Your task to perform on an android device: clear all cookies in the chrome app Image 0: 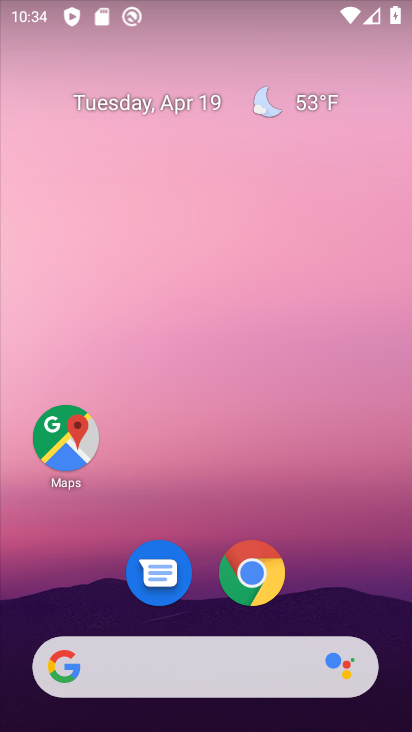
Step 0: click (252, 573)
Your task to perform on an android device: clear all cookies in the chrome app Image 1: 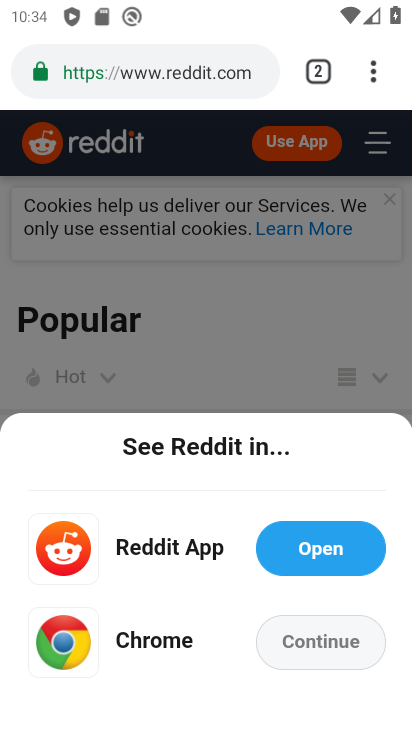
Step 1: click (373, 68)
Your task to perform on an android device: clear all cookies in the chrome app Image 2: 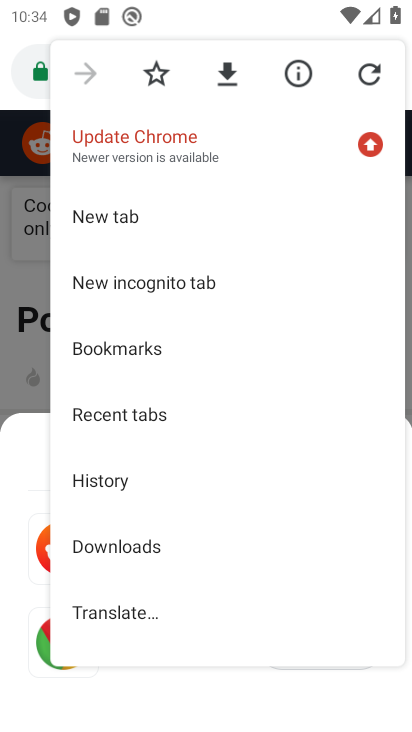
Step 2: drag from (176, 606) to (171, 216)
Your task to perform on an android device: clear all cookies in the chrome app Image 3: 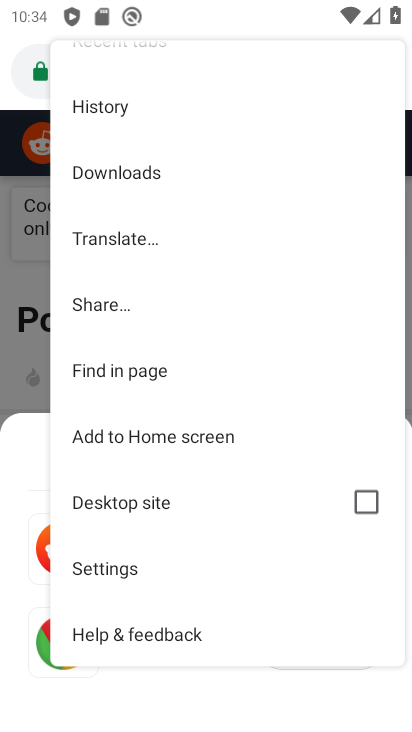
Step 3: click (115, 567)
Your task to perform on an android device: clear all cookies in the chrome app Image 4: 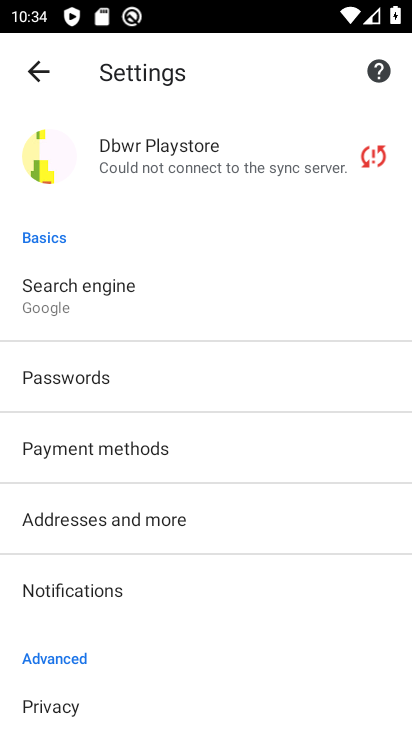
Step 4: drag from (131, 643) to (142, 253)
Your task to perform on an android device: clear all cookies in the chrome app Image 5: 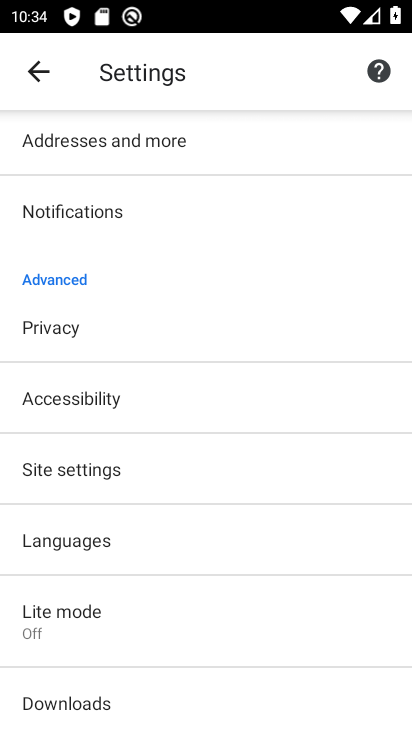
Step 5: drag from (144, 660) to (148, 261)
Your task to perform on an android device: clear all cookies in the chrome app Image 6: 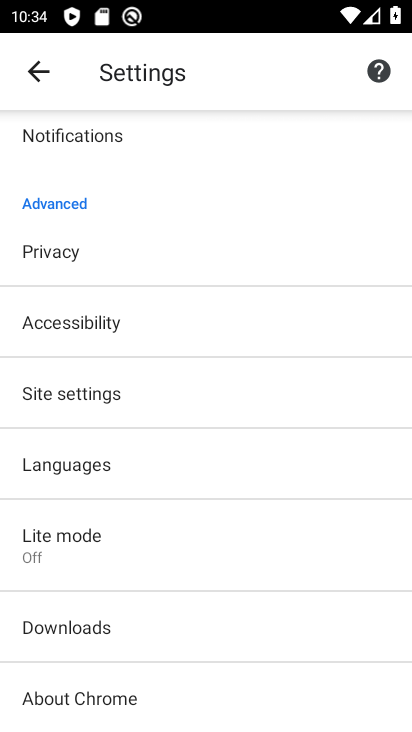
Step 6: click (55, 248)
Your task to perform on an android device: clear all cookies in the chrome app Image 7: 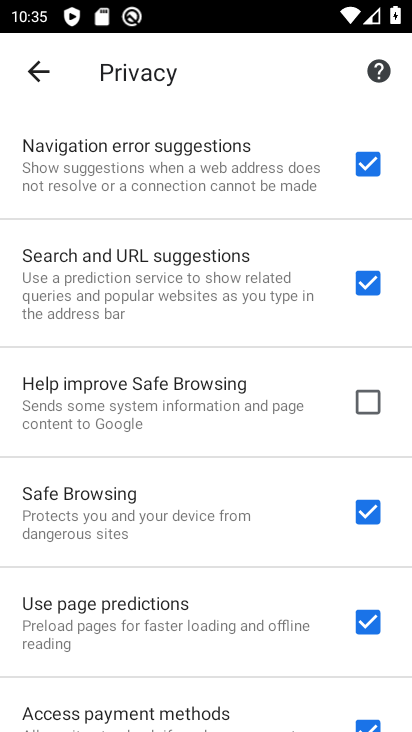
Step 7: drag from (181, 646) to (185, 134)
Your task to perform on an android device: clear all cookies in the chrome app Image 8: 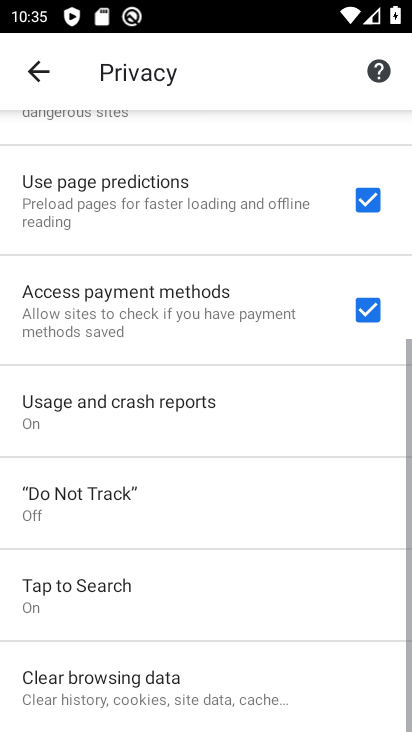
Step 8: drag from (209, 663) to (211, 187)
Your task to perform on an android device: clear all cookies in the chrome app Image 9: 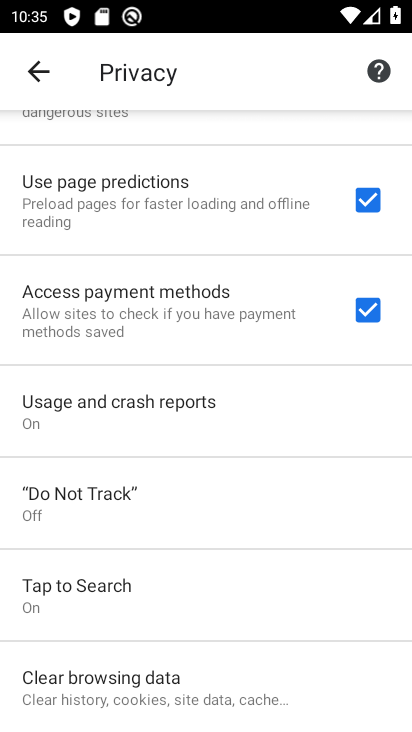
Step 9: click (74, 695)
Your task to perform on an android device: clear all cookies in the chrome app Image 10: 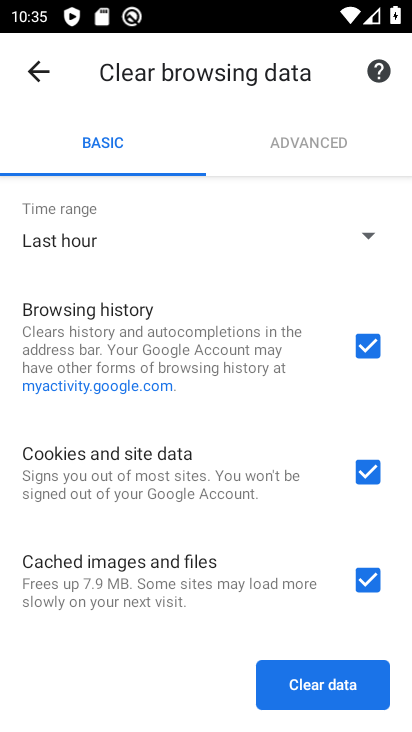
Step 10: click (362, 344)
Your task to perform on an android device: clear all cookies in the chrome app Image 11: 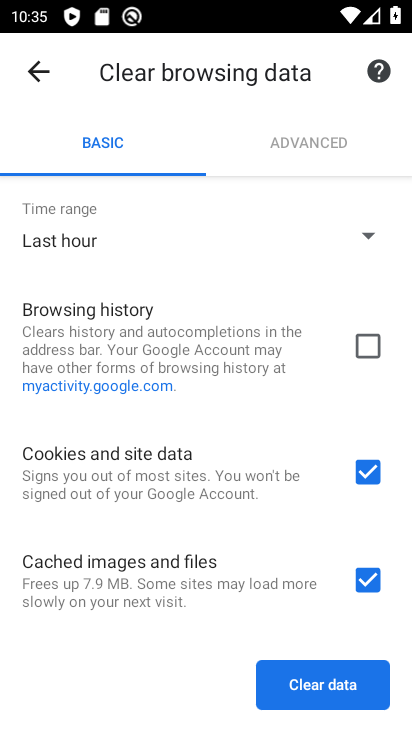
Step 11: click (368, 581)
Your task to perform on an android device: clear all cookies in the chrome app Image 12: 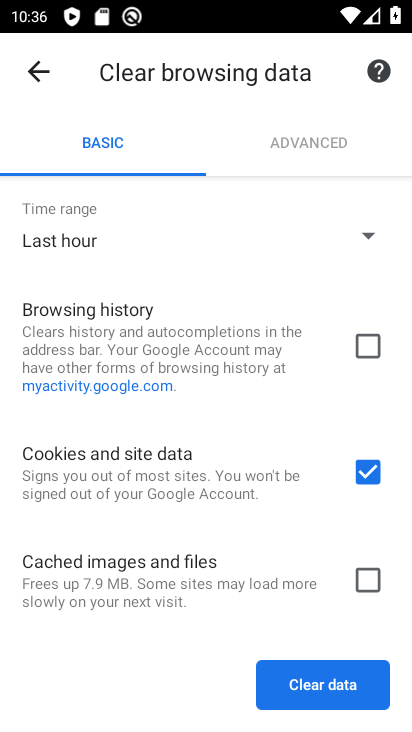
Step 12: click (333, 683)
Your task to perform on an android device: clear all cookies in the chrome app Image 13: 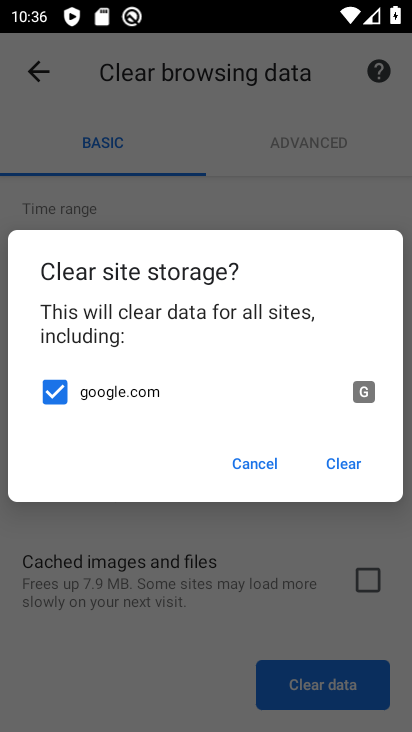
Step 13: click (342, 463)
Your task to perform on an android device: clear all cookies in the chrome app Image 14: 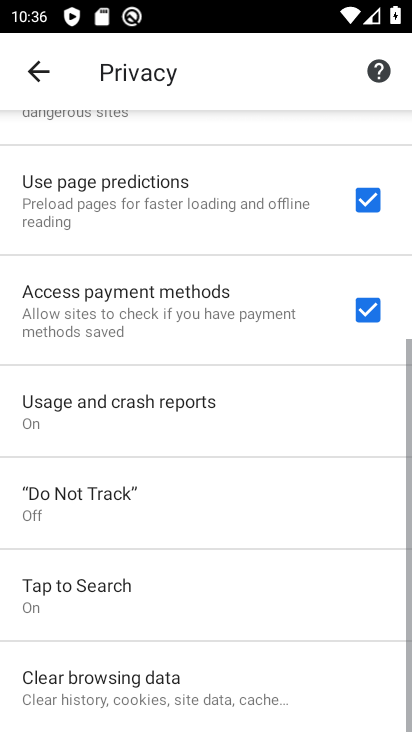
Step 14: task complete